Your task to perform on an android device: Search for vegetarian restaurants on Maps Image 0: 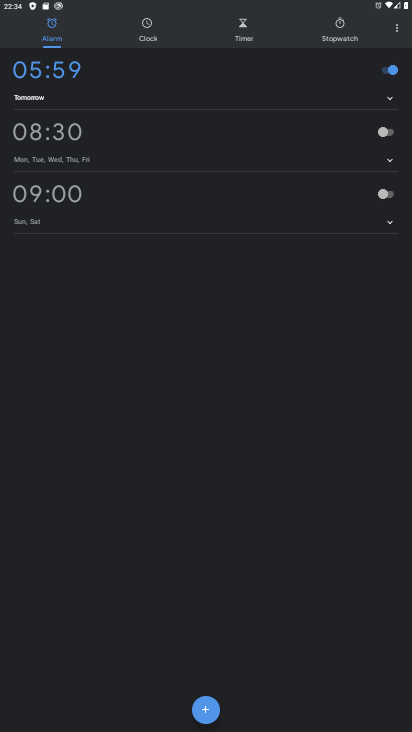
Step 0: press home button
Your task to perform on an android device: Search for vegetarian restaurants on Maps Image 1: 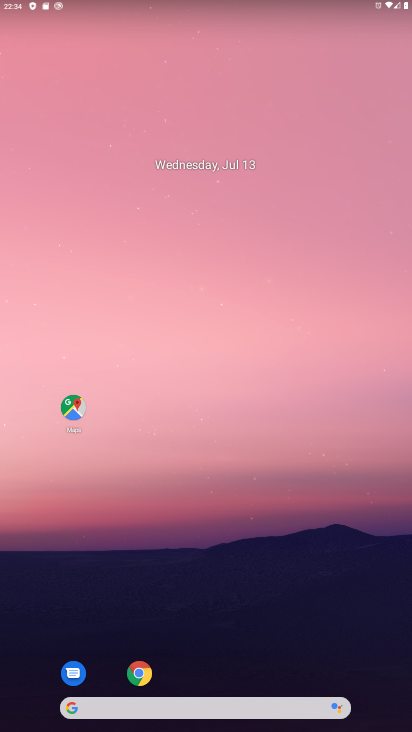
Step 1: drag from (173, 684) to (249, 410)
Your task to perform on an android device: Search for vegetarian restaurants on Maps Image 2: 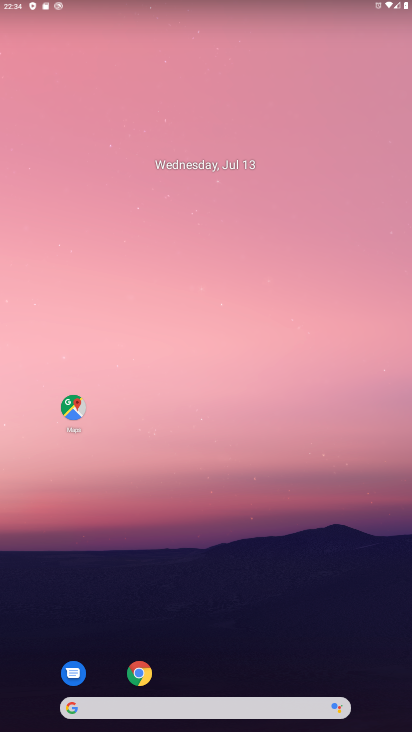
Step 2: drag from (193, 691) to (230, 226)
Your task to perform on an android device: Search for vegetarian restaurants on Maps Image 3: 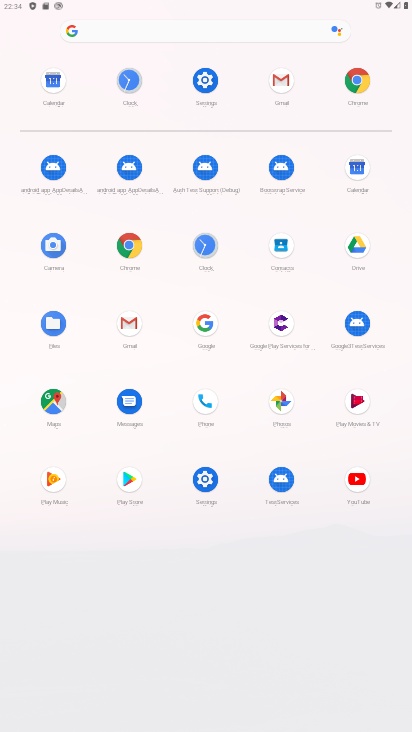
Step 3: click (54, 403)
Your task to perform on an android device: Search for vegetarian restaurants on Maps Image 4: 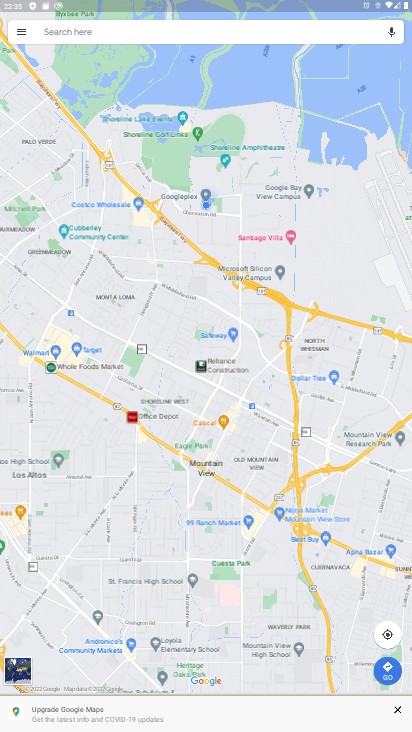
Step 4: click (81, 31)
Your task to perform on an android device: Search for vegetarian restaurants on Maps Image 5: 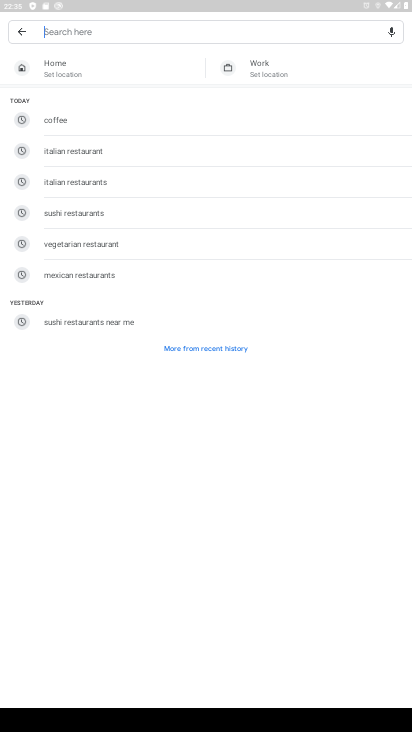
Step 5: click (58, 247)
Your task to perform on an android device: Search for vegetarian restaurants on Maps Image 6: 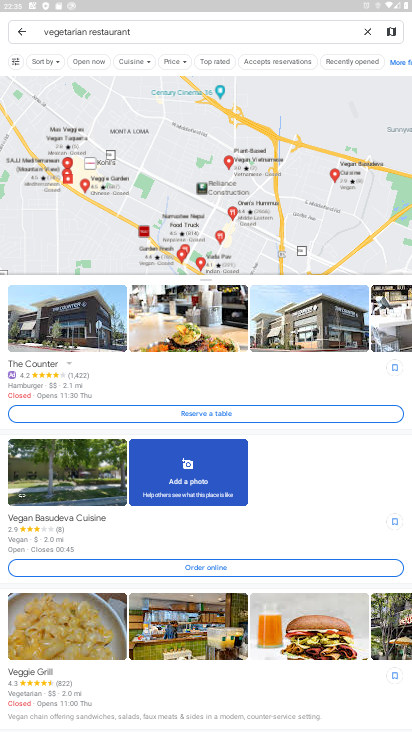
Step 6: task complete